Your task to perform on an android device: add a contact Image 0: 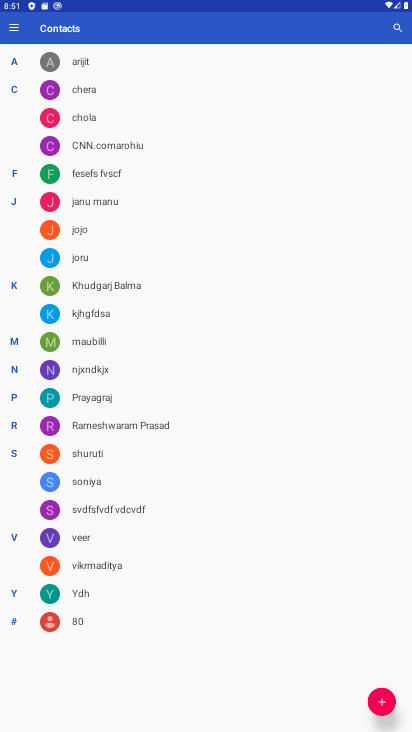
Step 0: click (378, 705)
Your task to perform on an android device: add a contact Image 1: 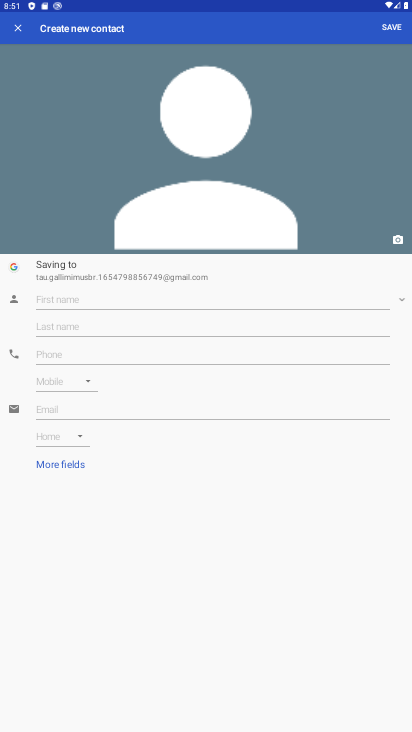
Step 1: click (114, 301)
Your task to perform on an android device: add a contact Image 2: 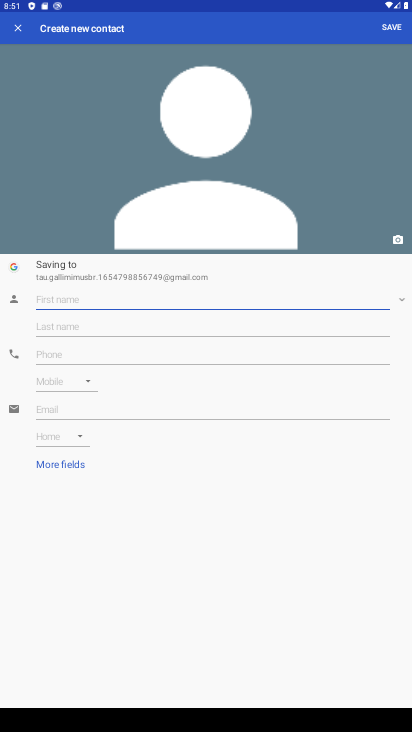
Step 2: type "xxz"
Your task to perform on an android device: add a contact Image 3: 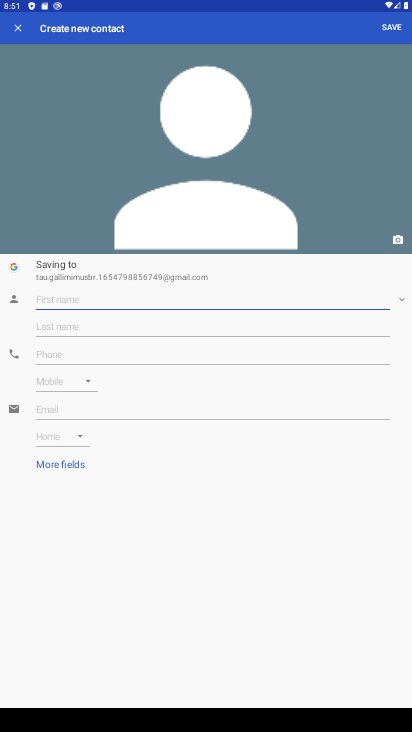
Step 3: click (56, 357)
Your task to perform on an android device: add a contact Image 4: 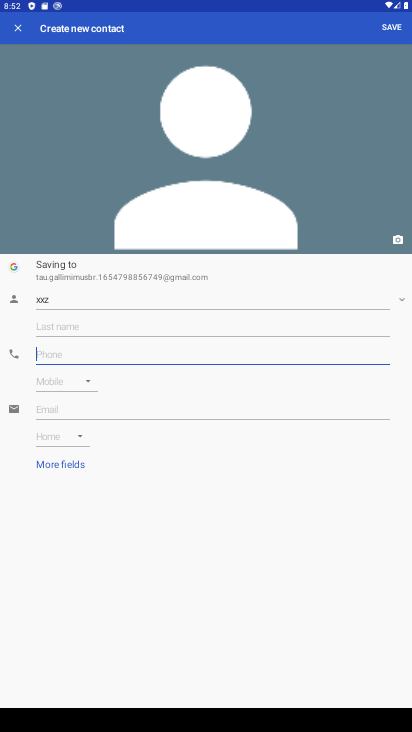
Step 4: type "90909090"
Your task to perform on an android device: add a contact Image 5: 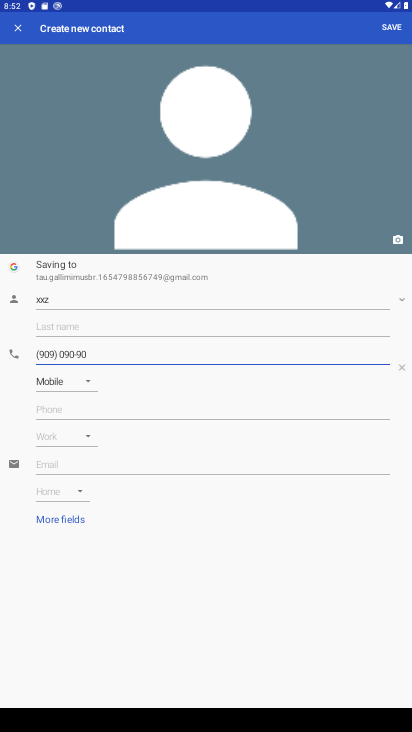
Step 5: click (390, 27)
Your task to perform on an android device: add a contact Image 6: 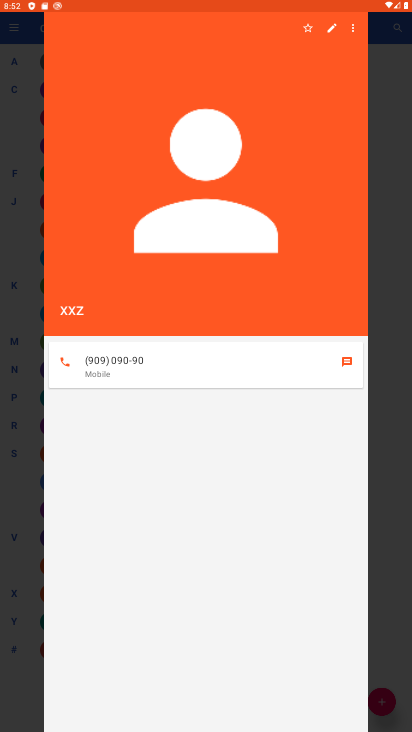
Step 6: task complete